Your task to perform on an android device: make emails show in primary in the gmail app Image 0: 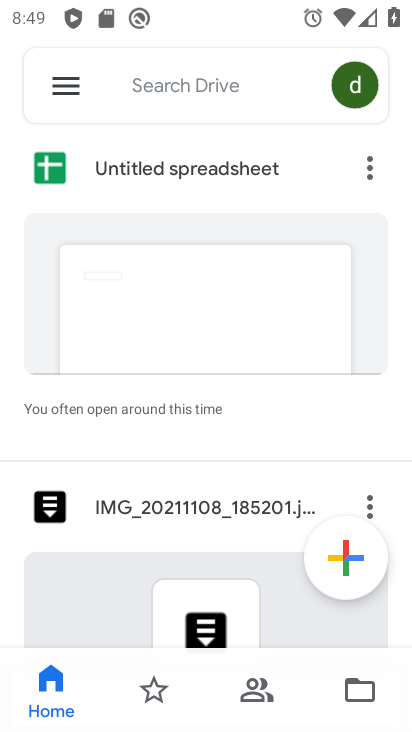
Step 0: press home button
Your task to perform on an android device: make emails show in primary in the gmail app Image 1: 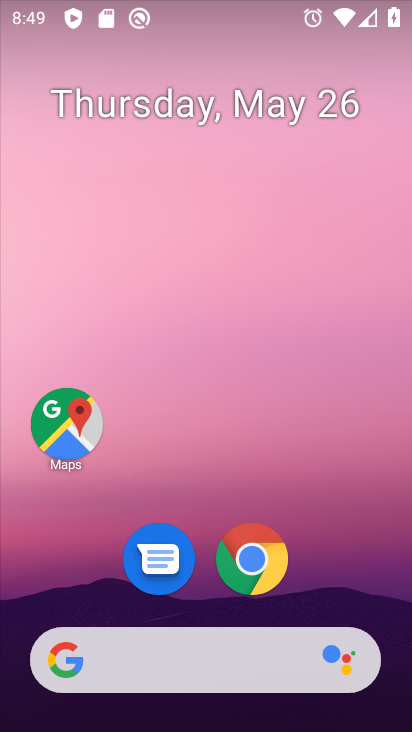
Step 1: drag from (348, 581) to (302, 169)
Your task to perform on an android device: make emails show in primary in the gmail app Image 2: 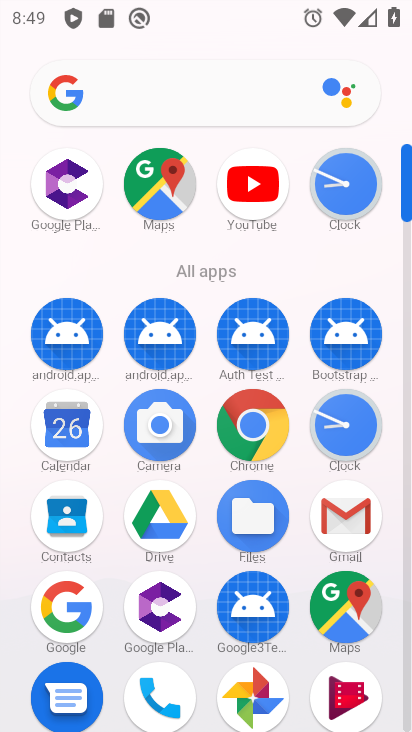
Step 2: click (335, 514)
Your task to perform on an android device: make emails show in primary in the gmail app Image 3: 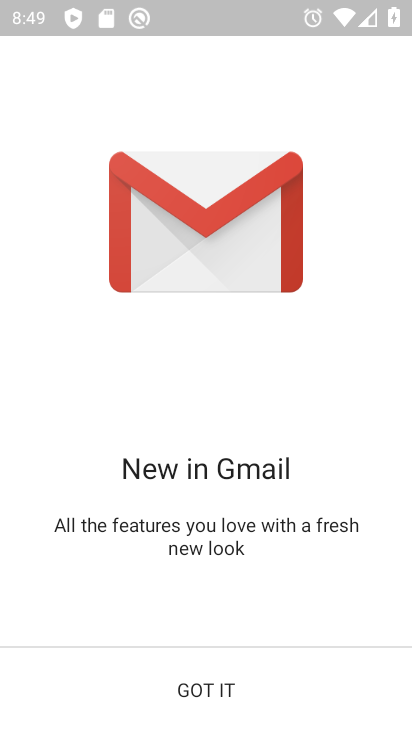
Step 3: click (203, 690)
Your task to perform on an android device: make emails show in primary in the gmail app Image 4: 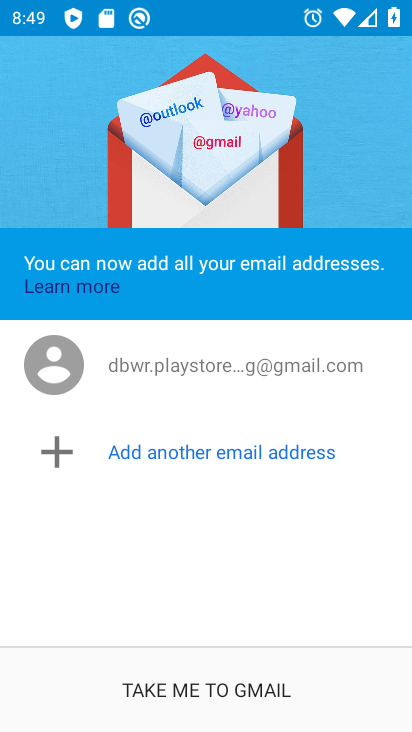
Step 4: click (203, 690)
Your task to perform on an android device: make emails show in primary in the gmail app Image 5: 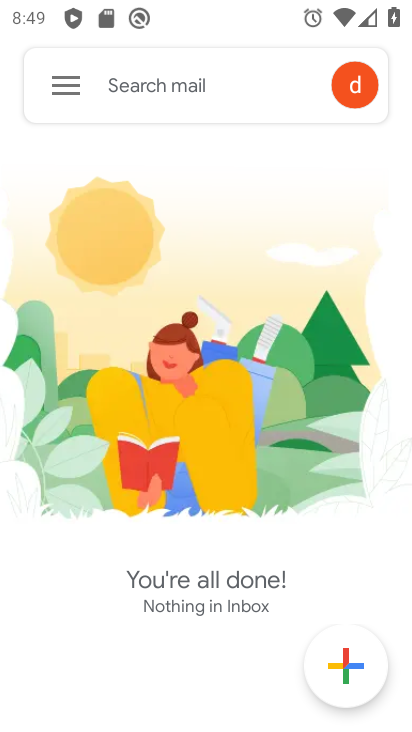
Step 5: click (354, 87)
Your task to perform on an android device: make emails show in primary in the gmail app Image 6: 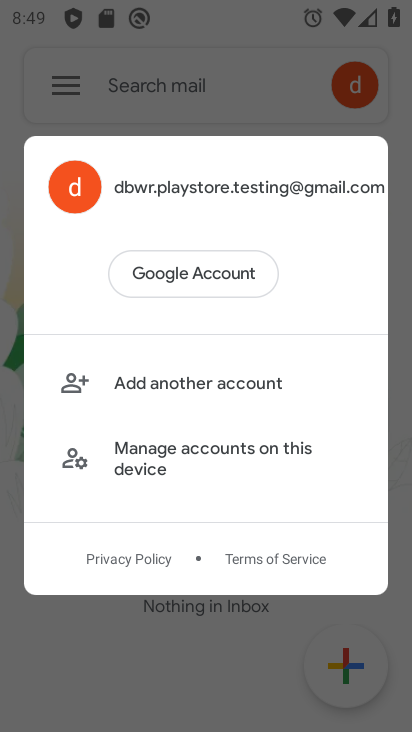
Step 6: click (284, 99)
Your task to perform on an android device: make emails show in primary in the gmail app Image 7: 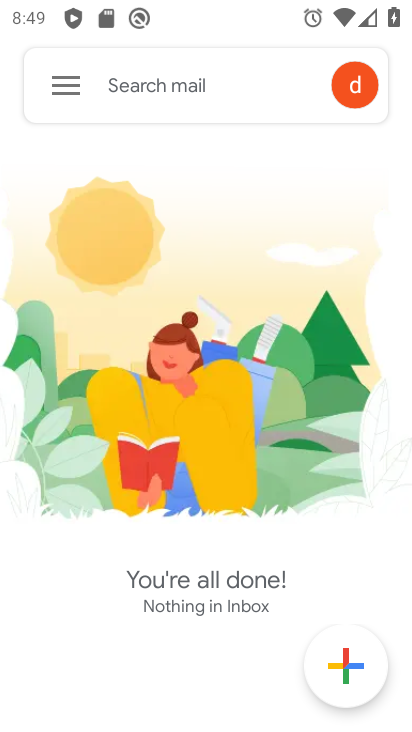
Step 7: click (71, 80)
Your task to perform on an android device: make emails show in primary in the gmail app Image 8: 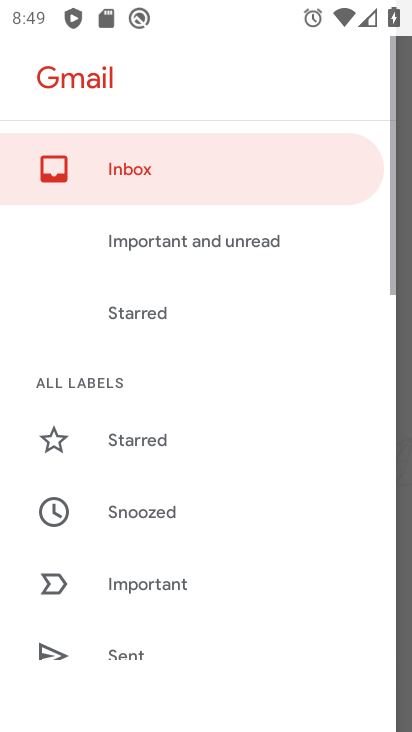
Step 8: drag from (196, 620) to (252, 35)
Your task to perform on an android device: make emails show in primary in the gmail app Image 9: 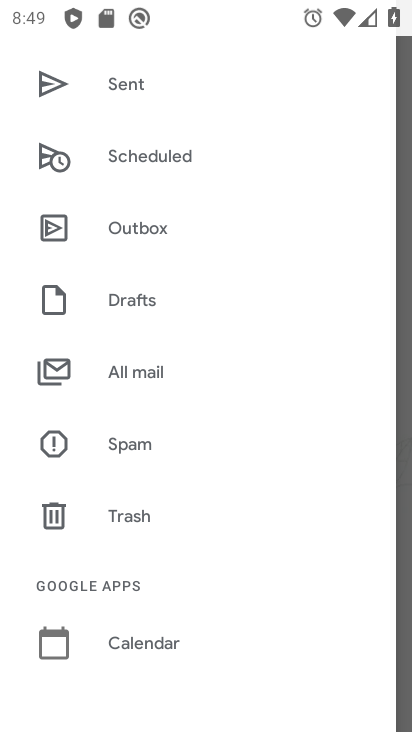
Step 9: drag from (160, 617) to (189, 270)
Your task to perform on an android device: make emails show in primary in the gmail app Image 10: 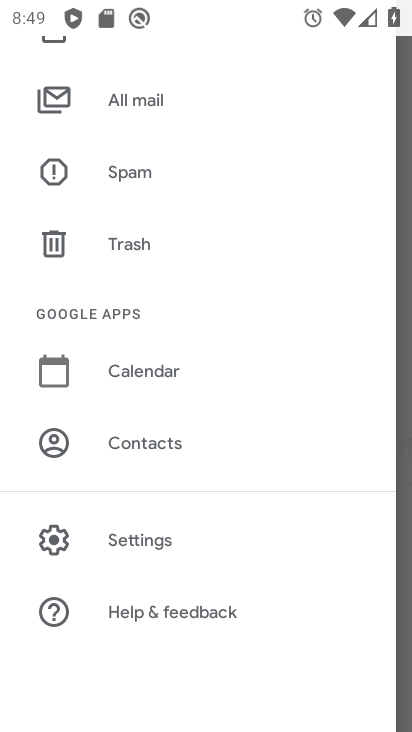
Step 10: click (88, 529)
Your task to perform on an android device: make emails show in primary in the gmail app Image 11: 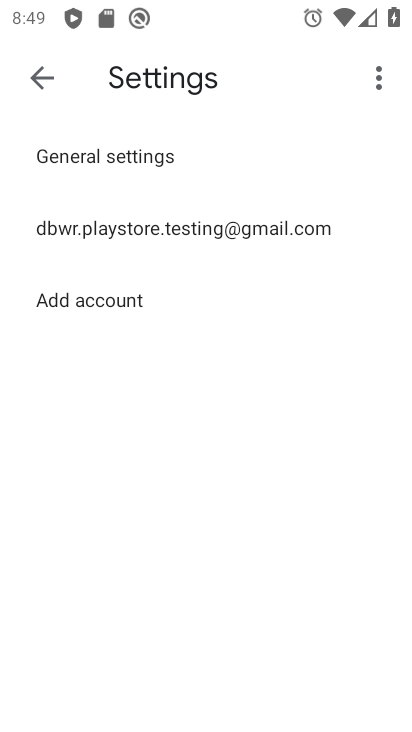
Step 11: click (140, 224)
Your task to perform on an android device: make emails show in primary in the gmail app Image 12: 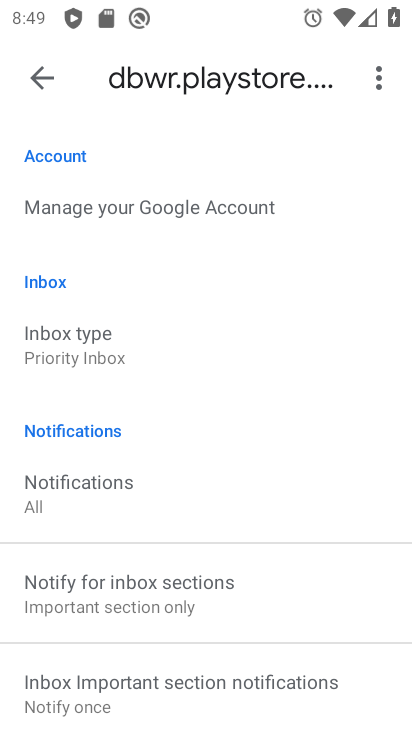
Step 12: click (76, 347)
Your task to perform on an android device: make emails show in primary in the gmail app Image 13: 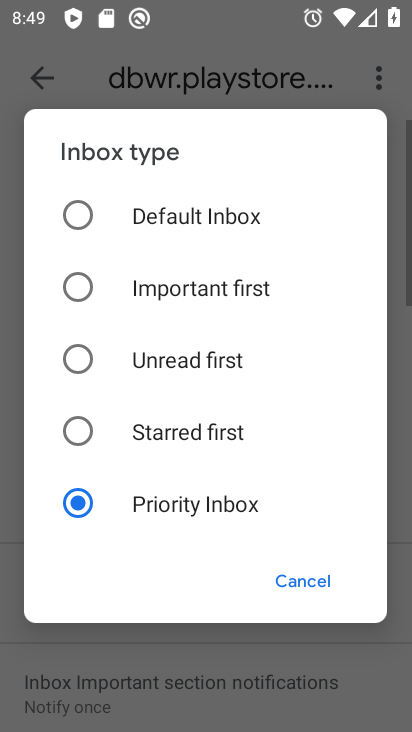
Step 13: click (72, 229)
Your task to perform on an android device: make emails show in primary in the gmail app Image 14: 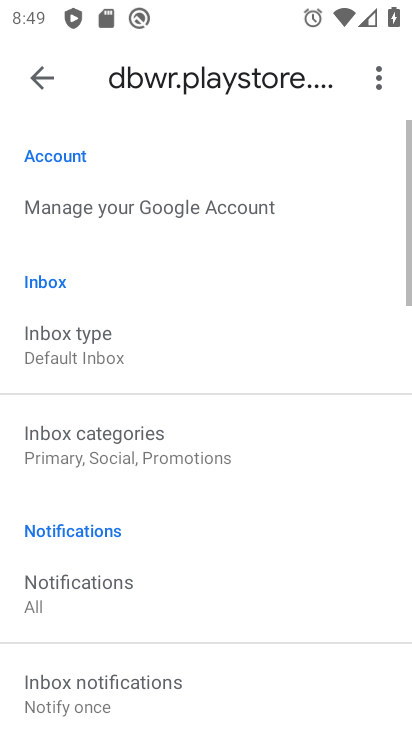
Step 14: click (101, 458)
Your task to perform on an android device: make emails show in primary in the gmail app Image 15: 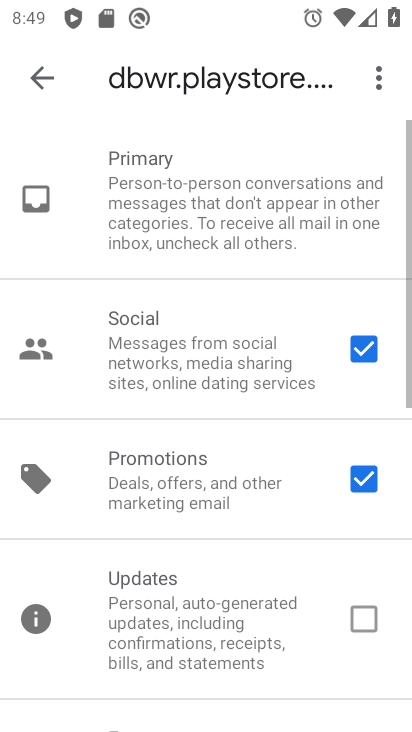
Step 15: click (377, 345)
Your task to perform on an android device: make emails show in primary in the gmail app Image 16: 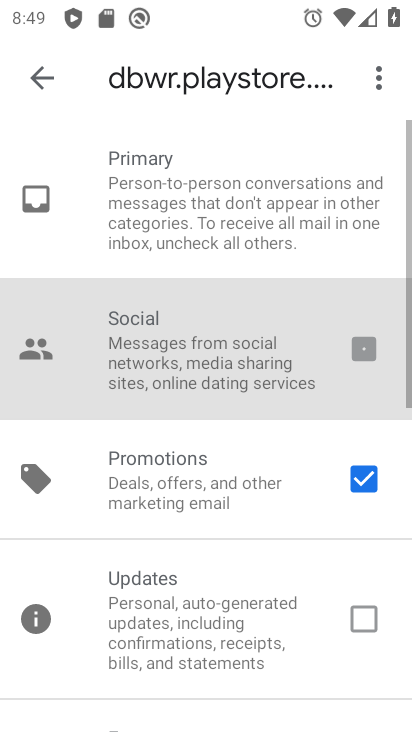
Step 16: click (360, 494)
Your task to perform on an android device: make emails show in primary in the gmail app Image 17: 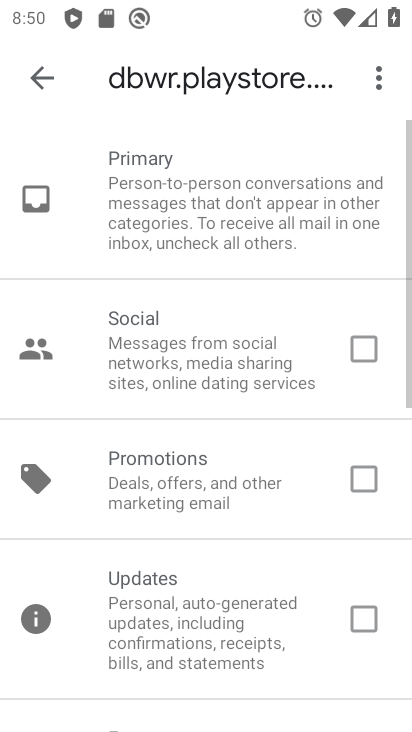
Step 17: task complete